Your task to perform on an android device: toggle improve location accuracy Image 0: 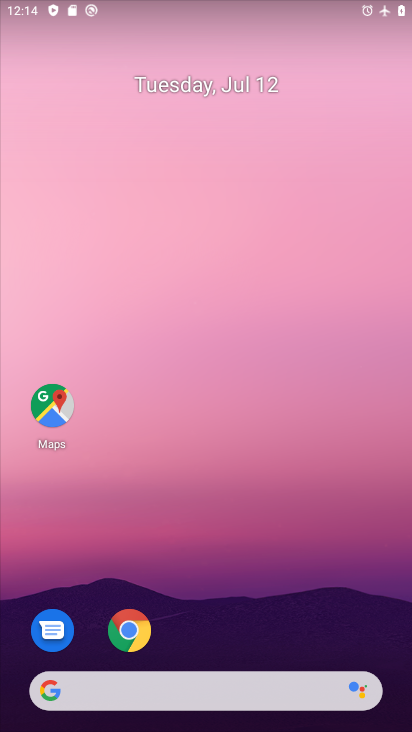
Step 0: drag from (260, 640) to (235, 160)
Your task to perform on an android device: toggle improve location accuracy Image 1: 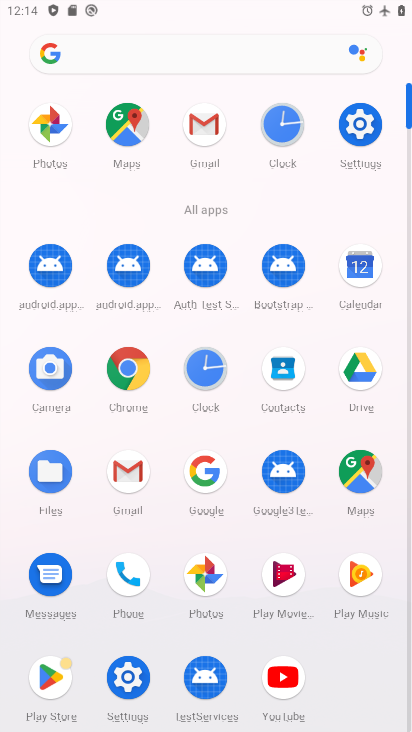
Step 1: click (130, 677)
Your task to perform on an android device: toggle improve location accuracy Image 2: 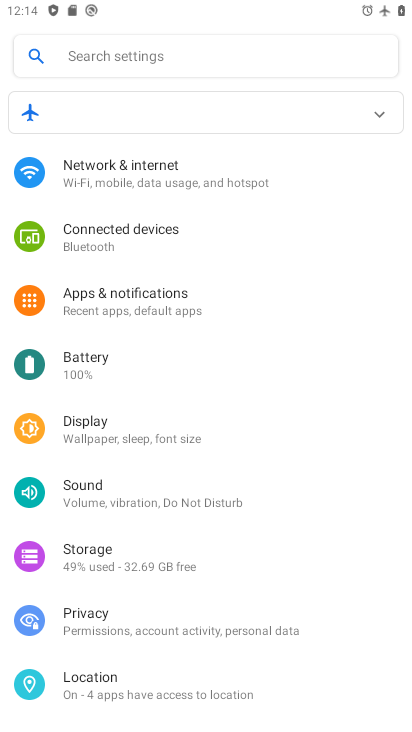
Step 2: click (98, 694)
Your task to perform on an android device: toggle improve location accuracy Image 3: 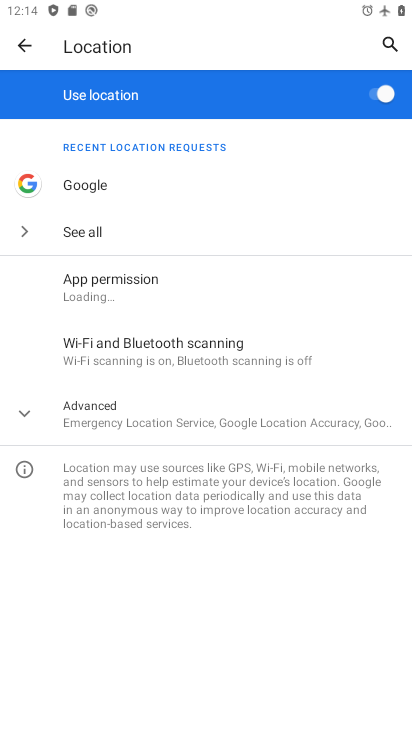
Step 3: click (53, 414)
Your task to perform on an android device: toggle improve location accuracy Image 4: 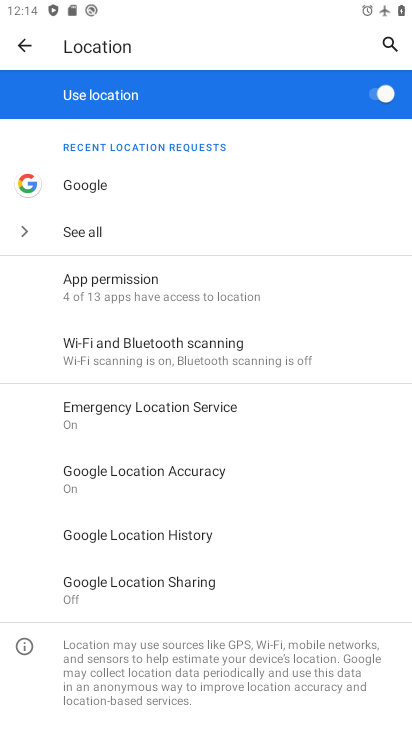
Step 4: click (109, 474)
Your task to perform on an android device: toggle improve location accuracy Image 5: 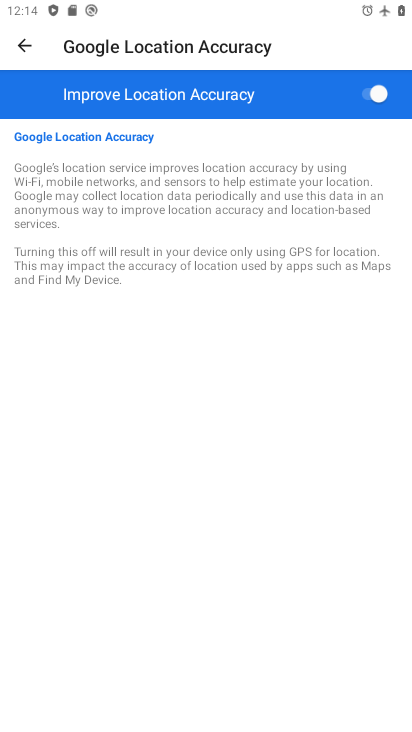
Step 5: click (366, 98)
Your task to perform on an android device: toggle improve location accuracy Image 6: 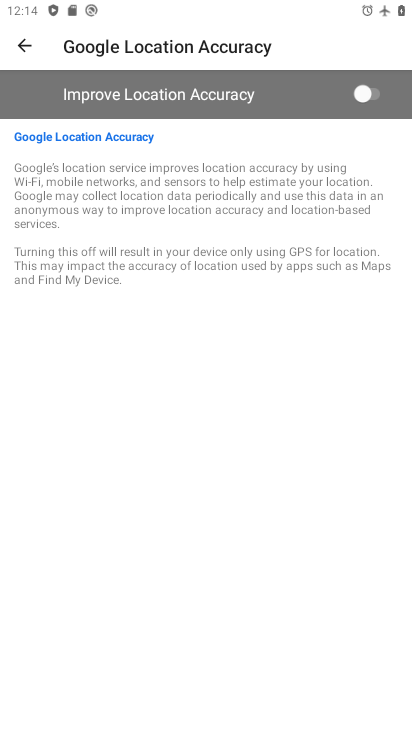
Step 6: task complete